Your task to perform on an android device: What is the news today? Image 0: 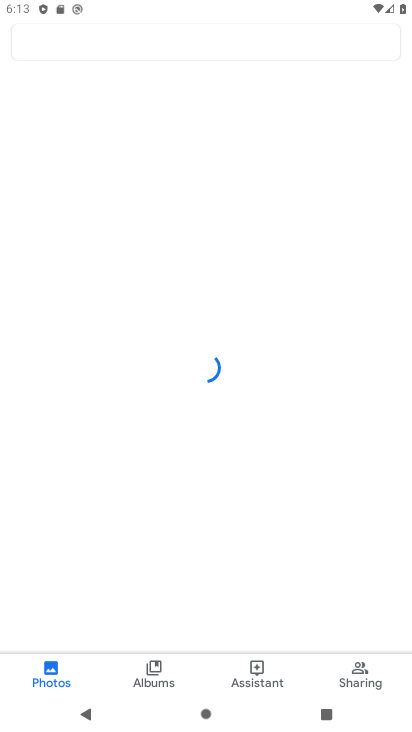
Step 0: press back button
Your task to perform on an android device: What is the news today? Image 1: 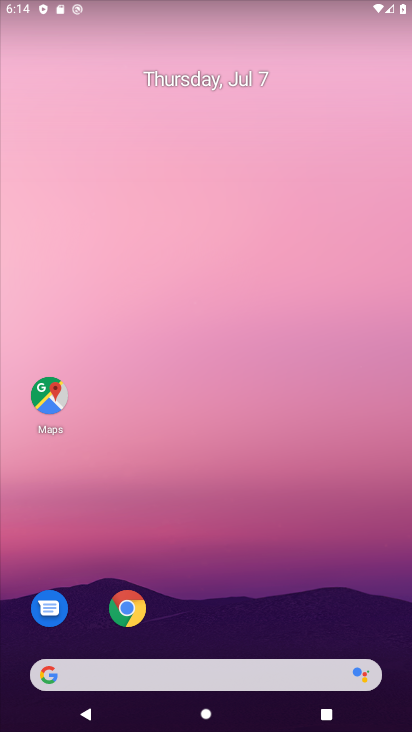
Step 1: click (157, 682)
Your task to perform on an android device: What is the news today? Image 2: 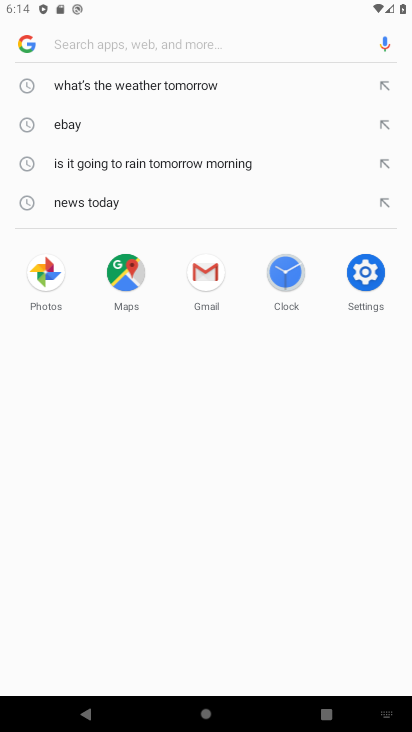
Step 2: click (117, 195)
Your task to perform on an android device: What is the news today? Image 3: 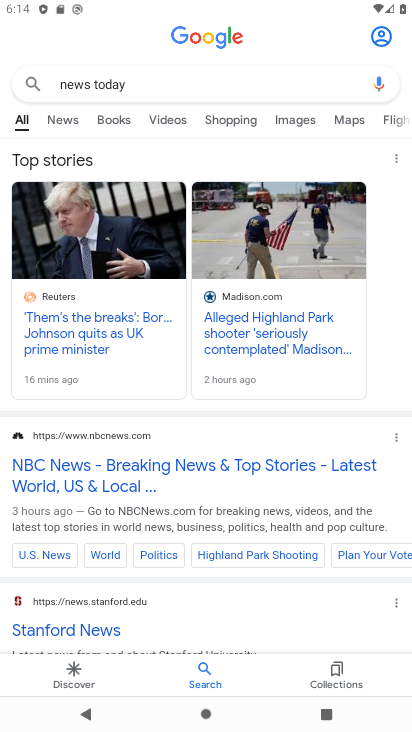
Step 3: task complete